Your task to perform on an android device: empty trash in google photos Image 0: 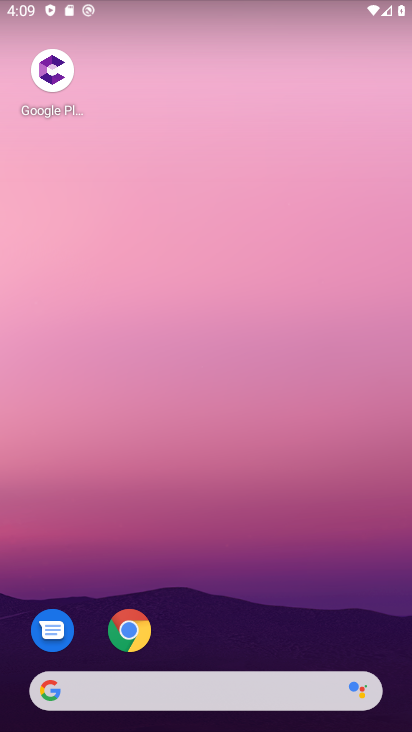
Step 0: drag from (286, 503) to (384, 9)
Your task to perform on an android device: empty trash in google photos Image 1: 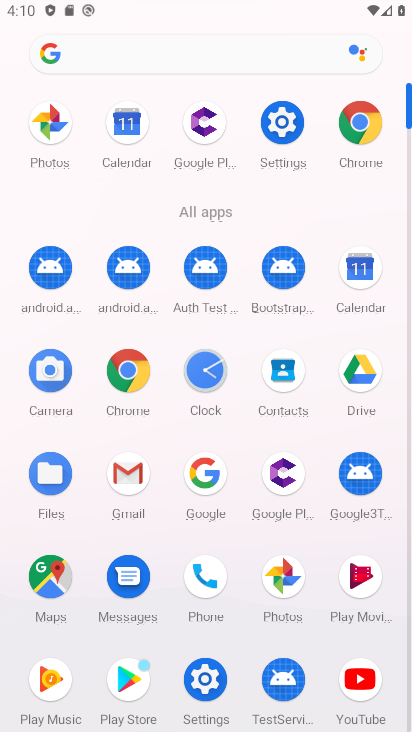
Step 1: click (133, 485)
Your task to perform on an android device: empty trash in google photos Image 2: 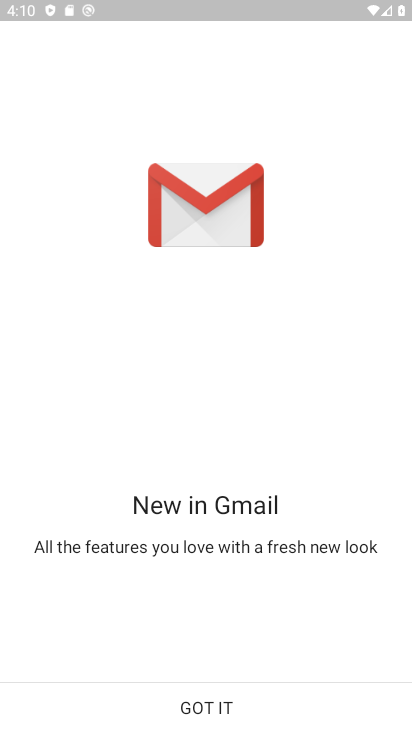
Step 2: click (195, 709)
Your task to perform on an android device: empty trash in google photos Image 3: 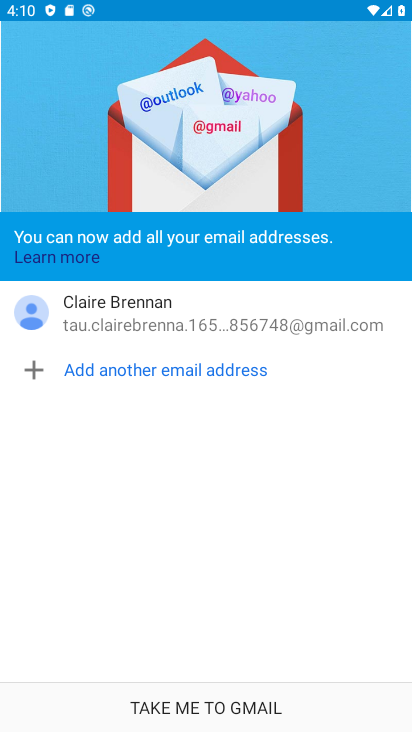
Step 3: click (192, 691)
Your task to perform on an android device: empty trash in google photos Image 4: 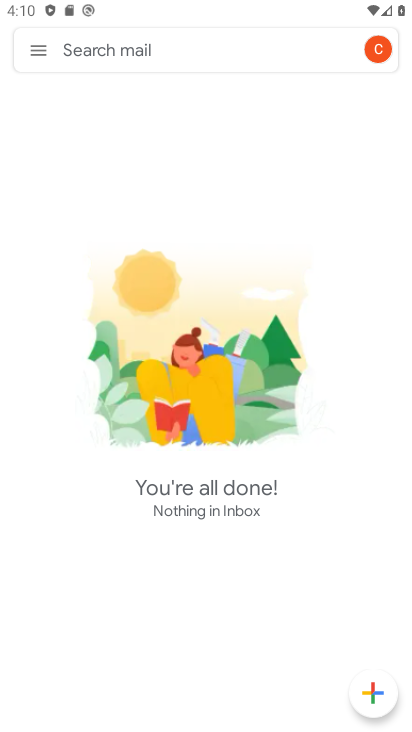
Step 4: click (42, 61)
Your task to perform on an android device: empty trash in google photos Image 5: 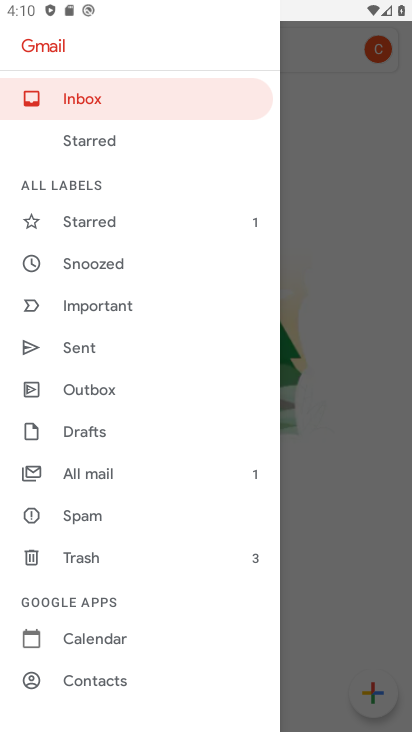
Step 5: drag from (136, 581) to (215, 269)
Your task to perform on an android device: empty trash in google photos Image 6: 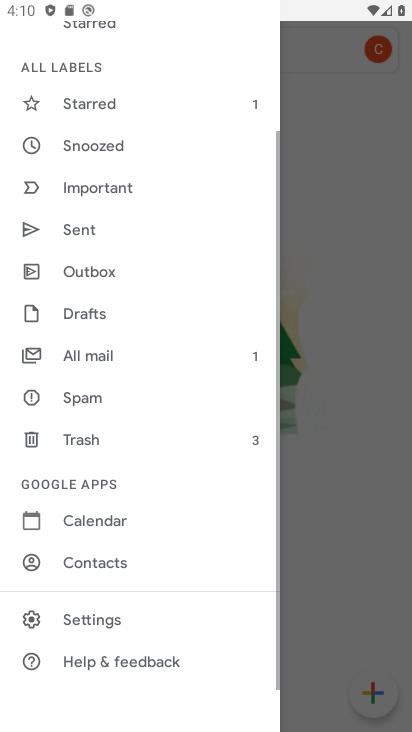
Step 6: click (101, 440)
Your task to perform on an android device: empty trash in google photos Image 7: 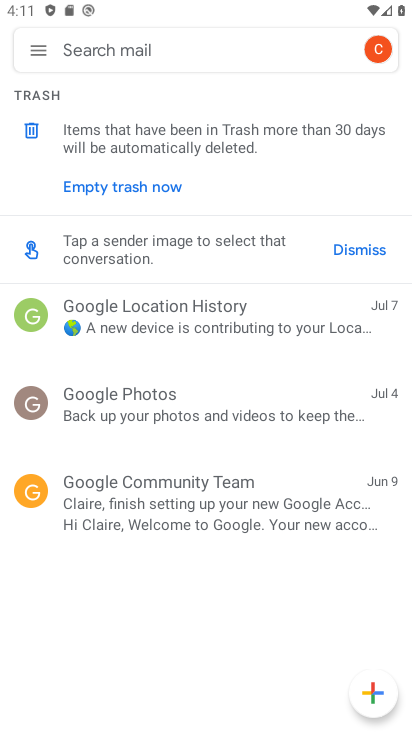
Step 7: click (32, 131)
Your task to perform on an android device: empty trash in google photos Image 8: 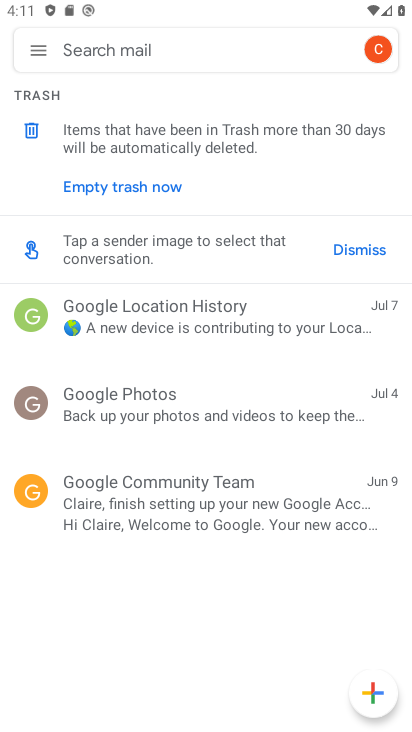
Step 8: click (30, 132)
Your task to perform on an android device: empty trash in google photos Image 9: 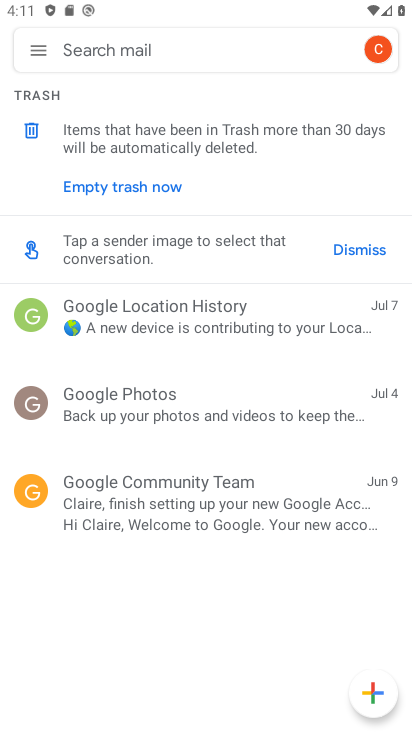
Step 9: click (68, 181)
Your task to perform on an android device: empty trash in google photos Image 10: 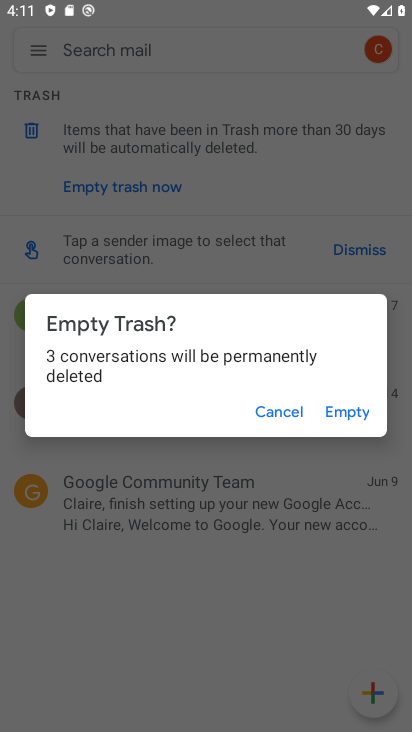
Step 10: click (335, 407)
Your task to perform on an android device: empty trash in google photos Image 11: 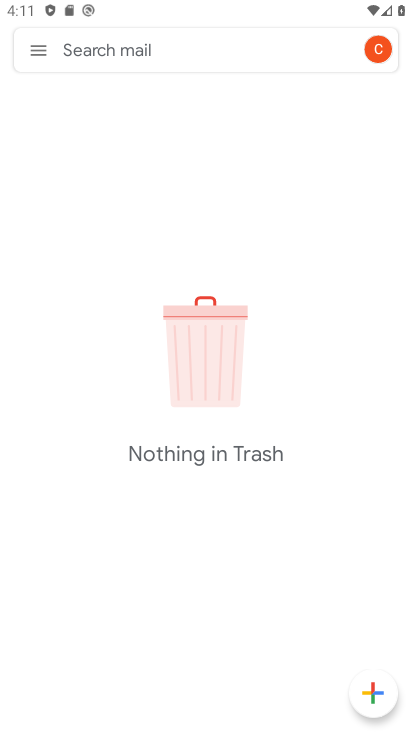
Step 11: task complete